Your task to perform on an android device: change the clock style Image 0: 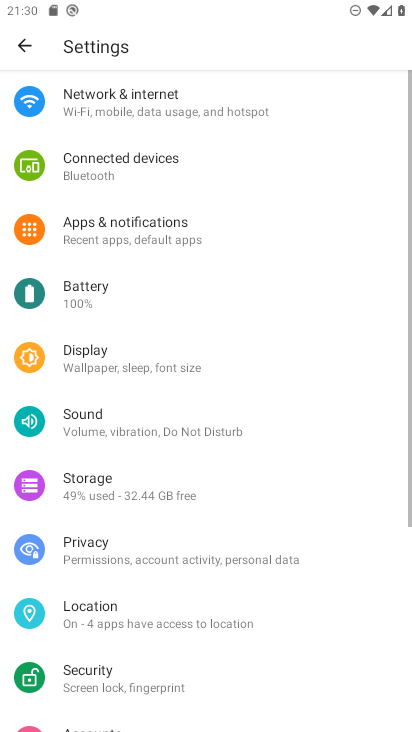
Step 0: press home button
Your task to perform on an android device: change the clock style Image 1: 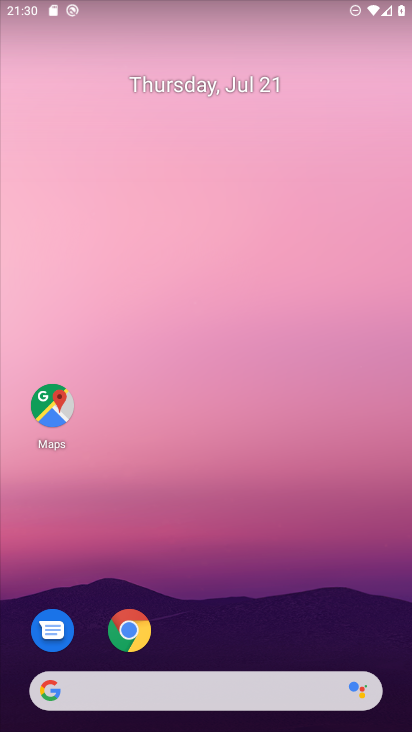
Step 1: drag from (210, 604) to (167, 147)
Your task to perform on an android device: change the clock style Image 2: 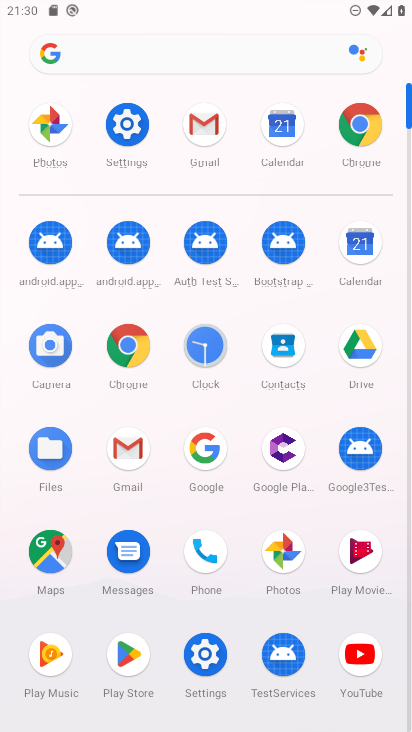
Step 2: click (211, 357)
Your task to perform on an android device: change the clock style Image 3: 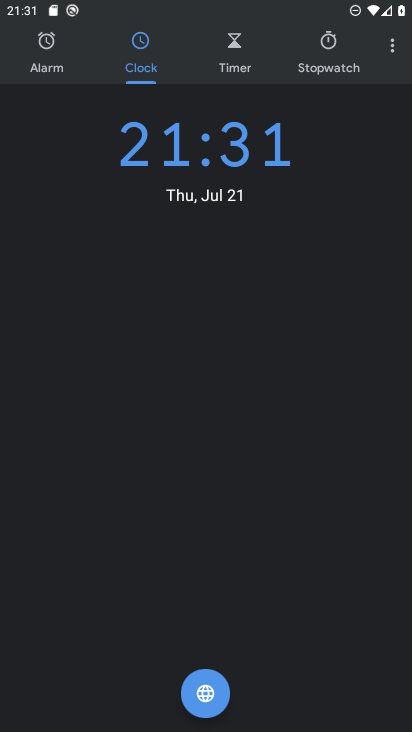
Step 3: click (406, 59)
Your task to perform on an android device: change the clock style Image 4: 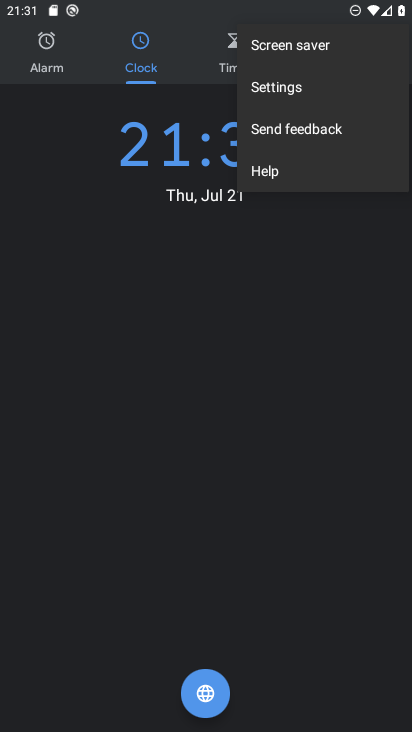
Step 4: click (321, 85)
Your task to perform on an android device: change the clock style Image 5: 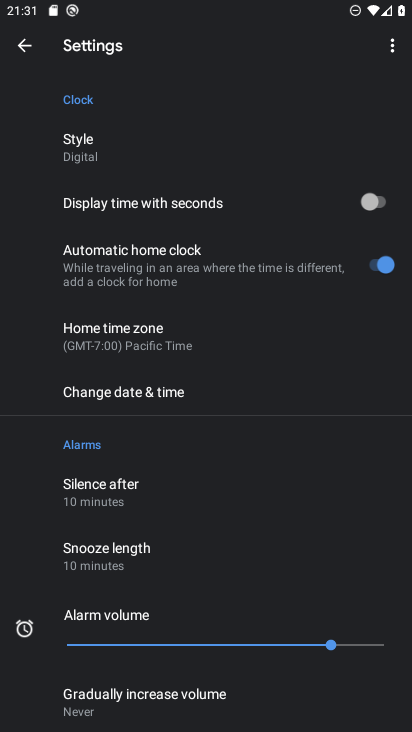
Step 5: click (111, 149)
Your task to perform on an android device: change the clock style Image 6: 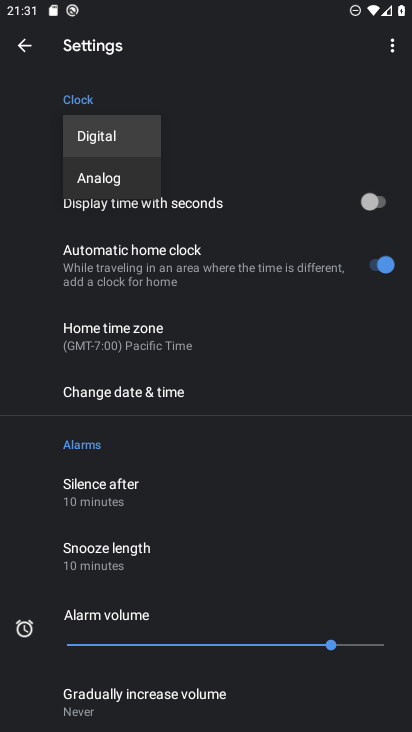
Step 6: click (127, 167)
Your task to perform on an android device: change the clock style Image 7: 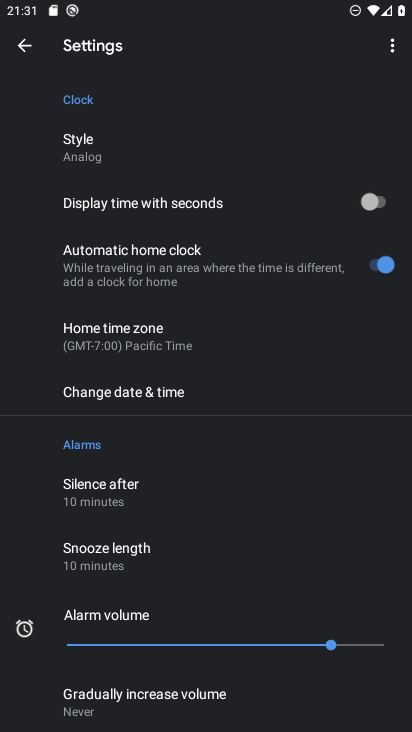
Step 7: task complete